Your task to perform on an android device: Open Youtube and go to the subscriptions tab Image 0: 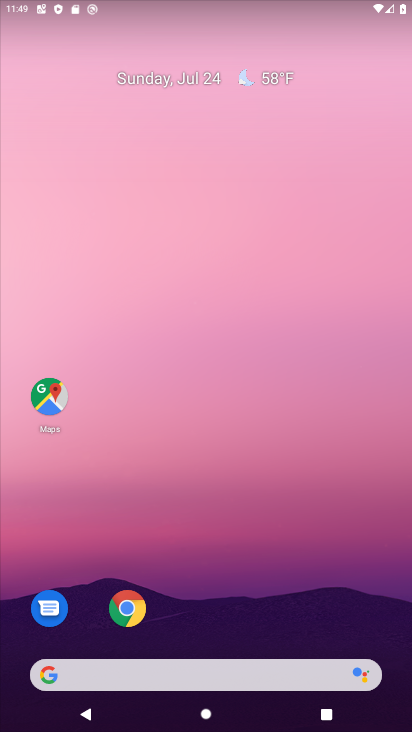
Step 0: drag from (230, 674) to (208, 194)
Your task to perform on an android device: Open Youtube and go to the subscriptions tab Image 1: 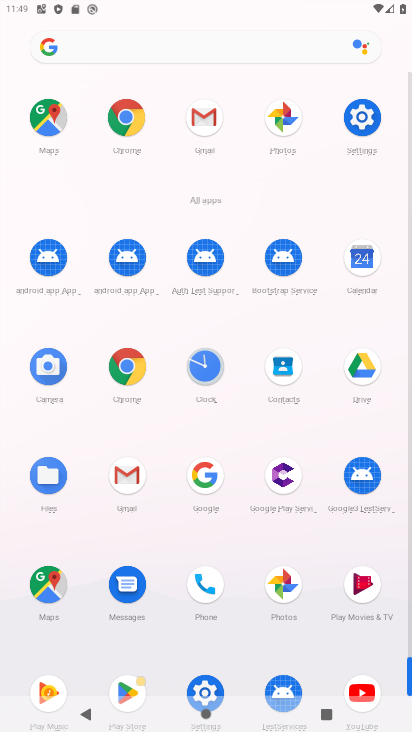
Step 1: click (355, 687)
Your task to perform on an android device: Open Youtube and go to the subscriptions tab Image 2: 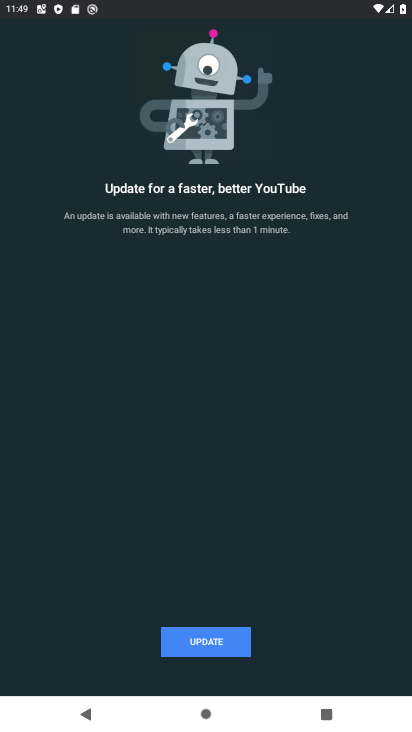
Step 2: click (214, 650)
Your task to perform on an android device: Open Youtube and go to the subscriptions tab Image 3: 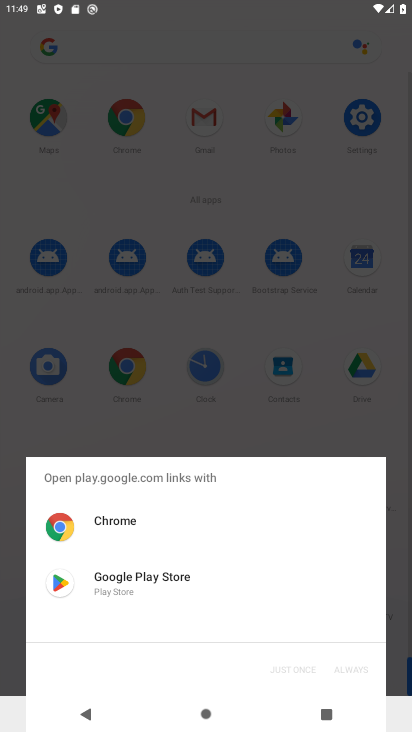
Step 3: click (164, 598)
Your task to perform on an android device: Open Youtube and go to the subscriptions tab Image 4: 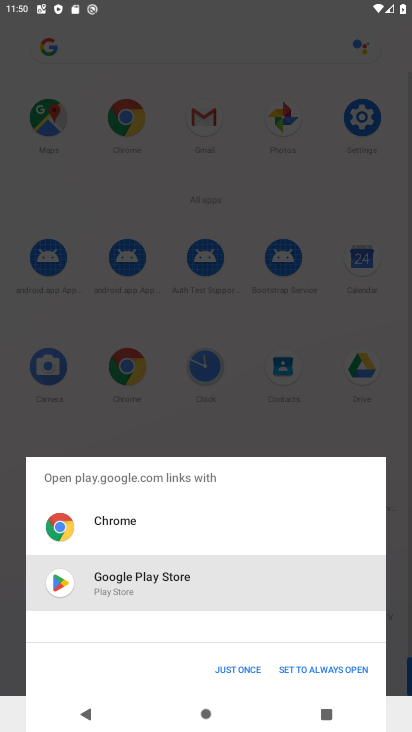
Step 4: click (247, 674)
Your task to perform on an android device: Open Youtube and go to the subscriptions tab Image 5: 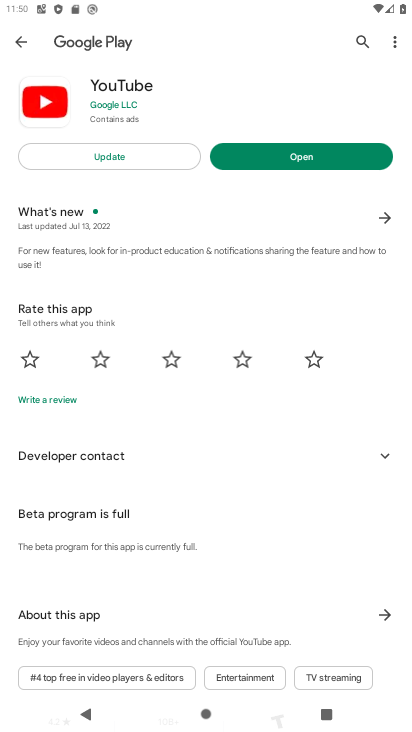
Step 5: click (121, 157)
Your task to perform on an android device: Open Youtube and go to the subscriptions tab Image 6: 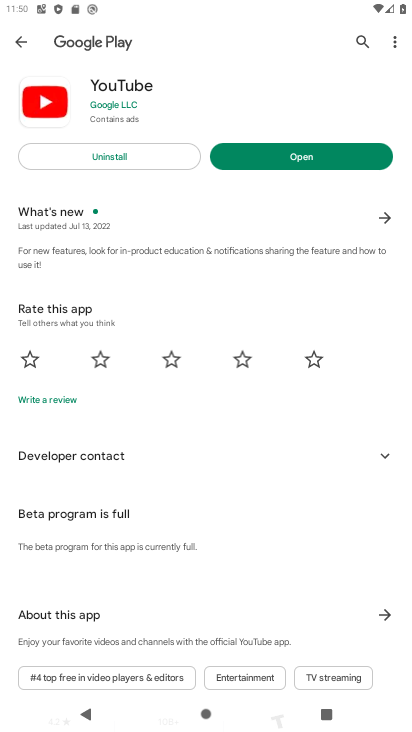
Step 6: click (231, 166)
Your task to perform on an android device: Open Youtube and go to the subscriptions tab Image 7: 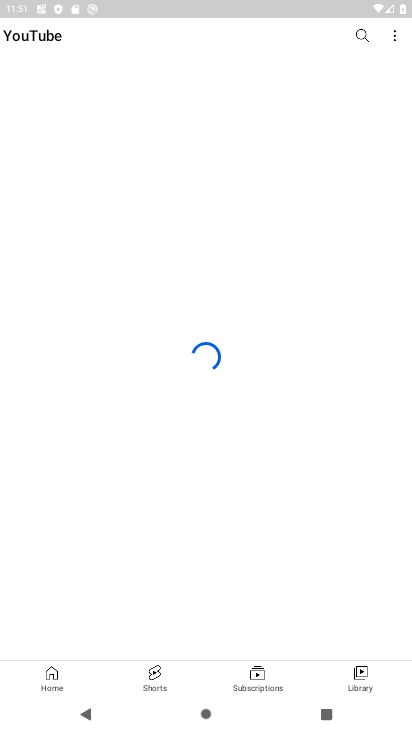
Step 7: click (261, 672)
Your task to perform on an android device: Open Youtube and go to the subscriptions tab Image 8: 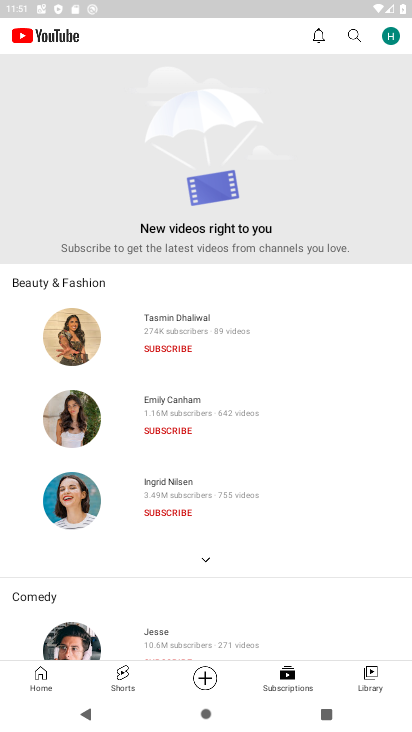
Step 8: click (261, 672)
Your task to perform on an android device: Open Youtube and go to the subscriptions tab Image 9: 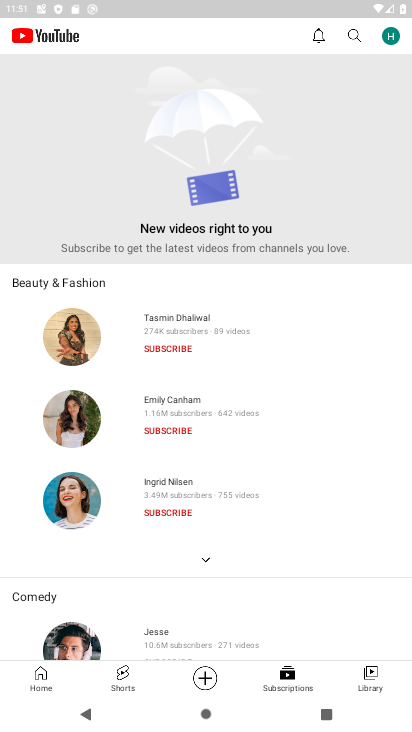
Step 9: task complete